Your task to perform on an android device: all mails in gmail Image 0: 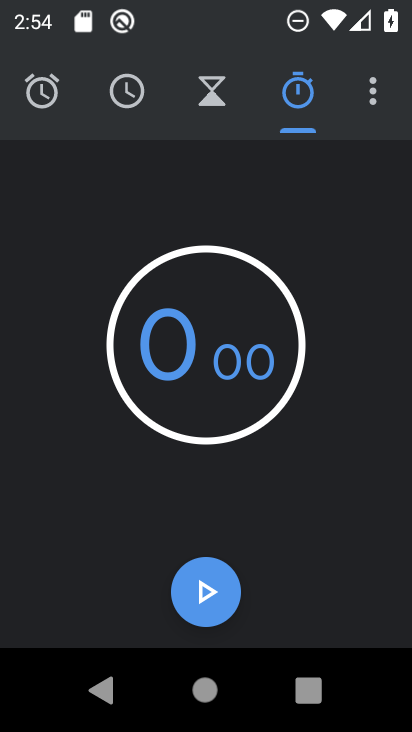
Step 0: press home button
Your task to perform on an android device: all mails in gmail Image 1: 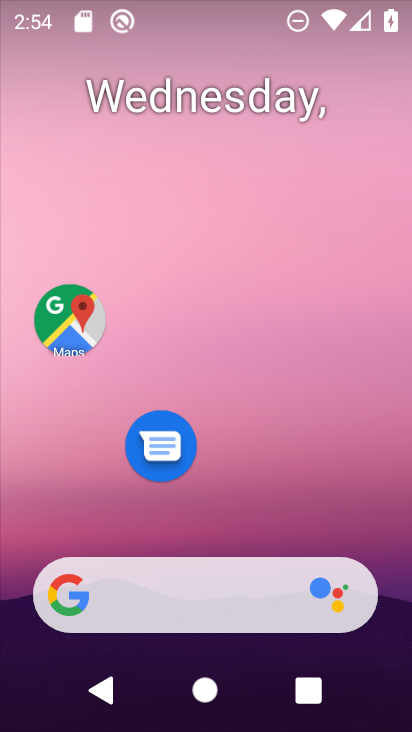
Step 1: drag from (305, 491) to (318, 1)
Your task to perform on an android device: all mails in gmail Image 2: 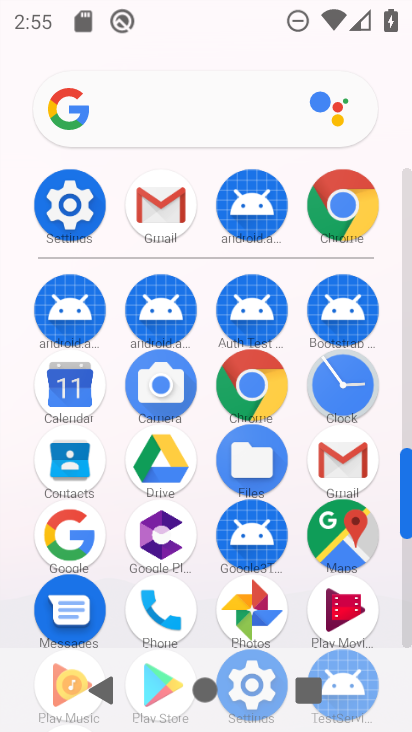
Step 2: click (170, 198)
Your task to perform on an android device: all mails in gmail Image 3: 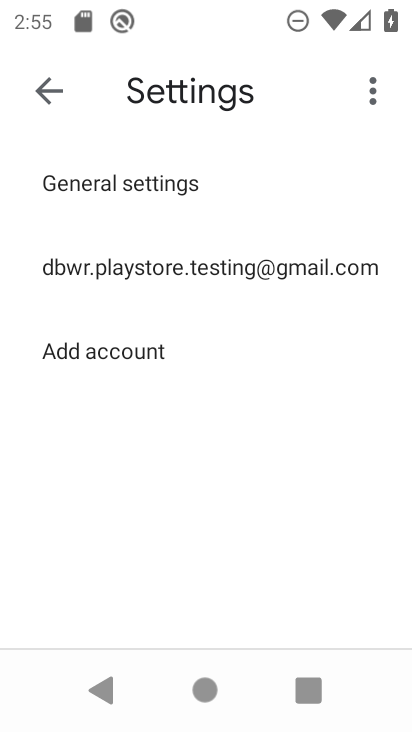
Step 3: click (57, 105)
Your task to perform on an android device: all mails in gmail Image 4: 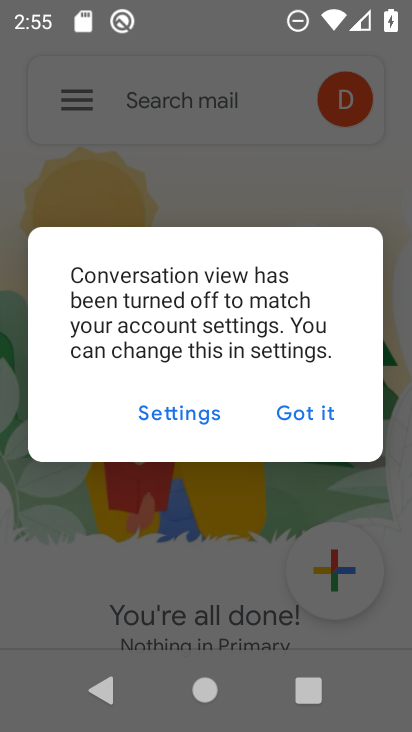
Step 4: click (295, 411)
Your task to perform on an android device: all mails in gmail Image 5: 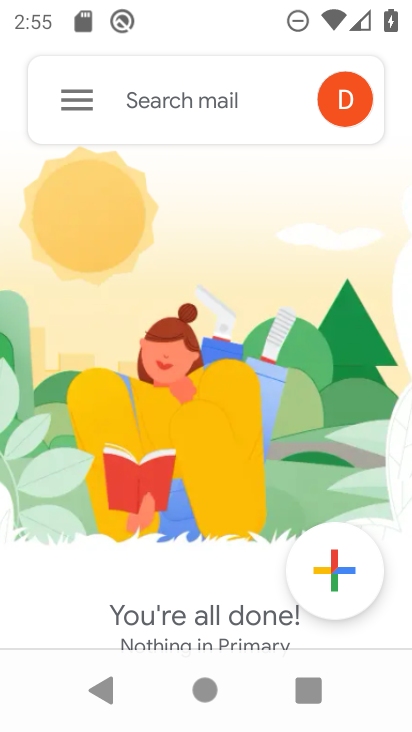
Step 5: click (95, 112)
Your task to perform on an android device: all mails in gmail Image 6: 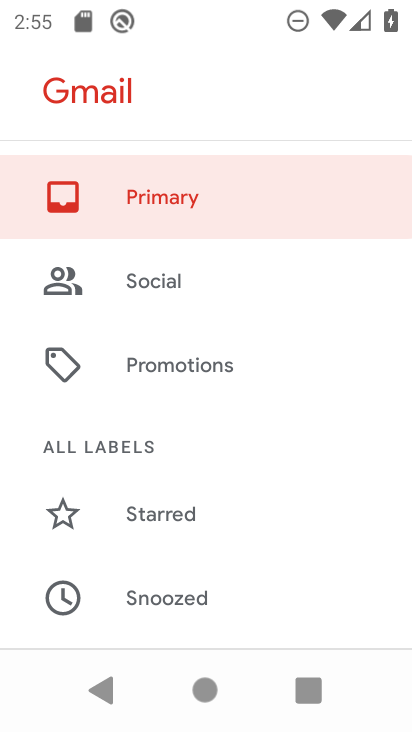
Step 6: drag from (166, 518) to (210, 232)
Your task to perform on an android device: all mails in gmail Image 7: 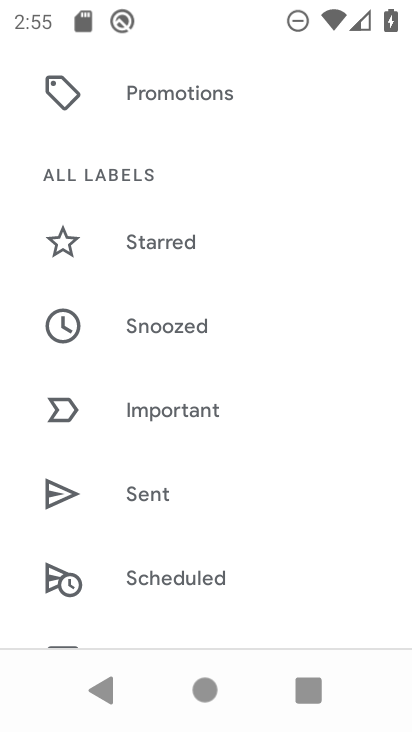
Step 7: drag from (146, 603) to (166, 321)
Your task to perform on an android device: all mails in gmail Image 8: 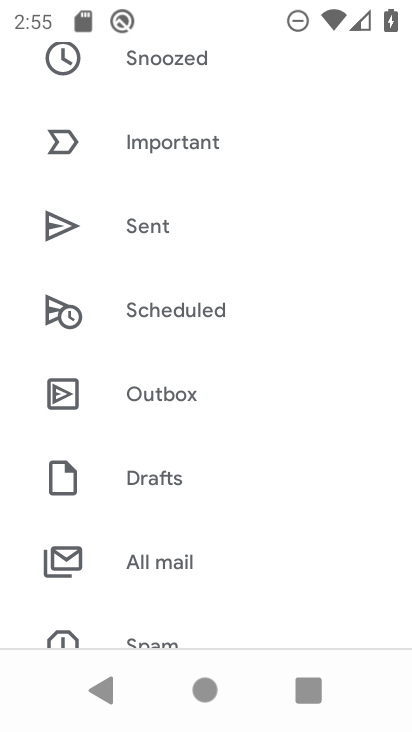
Step 8: click (144, 546)
Your task to perform on an android device: all mails in gmail Image 9: 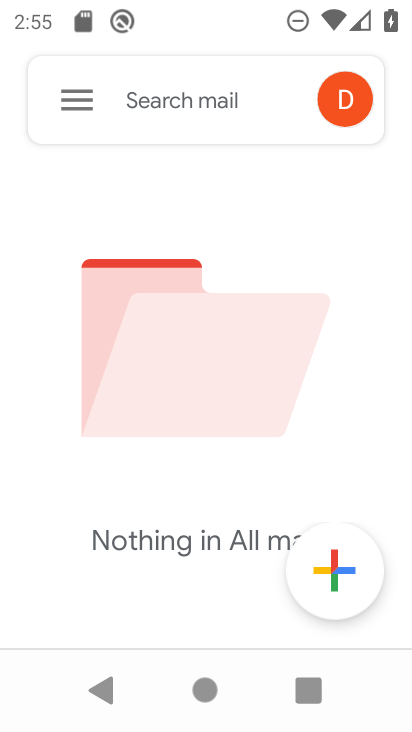
Step 9: task complete